Your task to perform on an android device: toggle improve location accuracy Image 0: 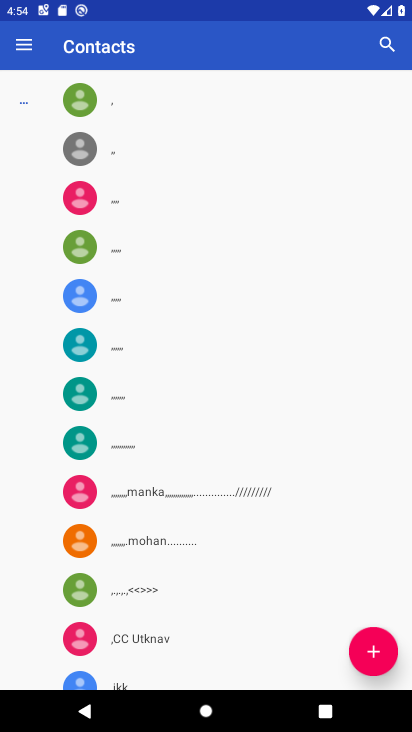
Step 0: press home button
Your task to perform on an android device: toggle improve location accuracy Image 1: 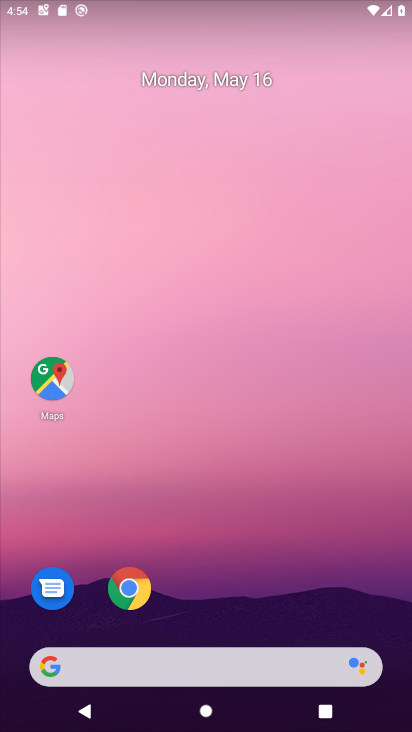
Step 1: drag from (267, 487) to (172, 84)
Your task to perform on an android device: toggle improve location accuracy Image 2: 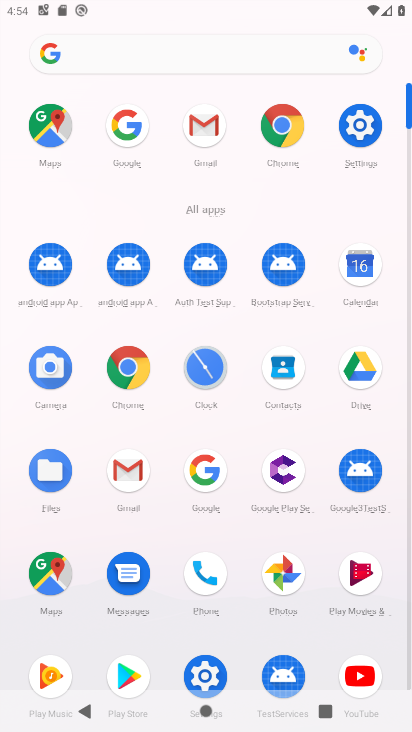
Step 2: click (351, 127)
Your task to perform on an android device: toggle improve location accuracy Image 3: 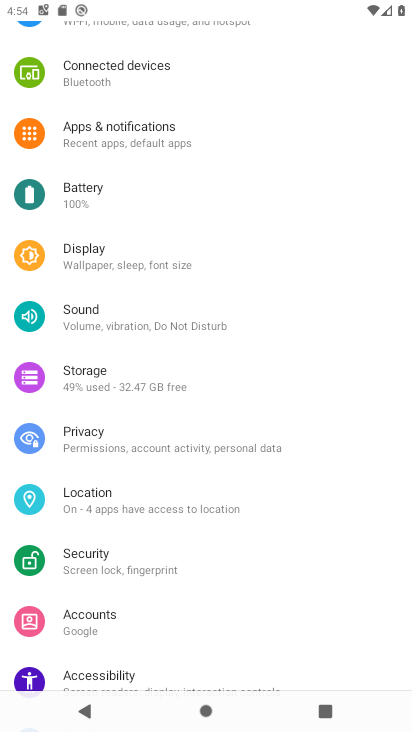
Step 3: click (150, 500)
Your task to perform on an android device: toggle improve location accuracy Image 4: 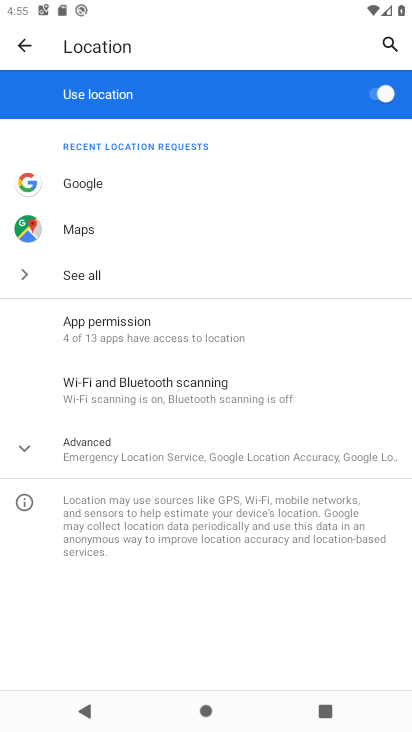
Step 4: click (170, 441)
Your task to perform on an android device: toggle improve location accuracy Image 5: 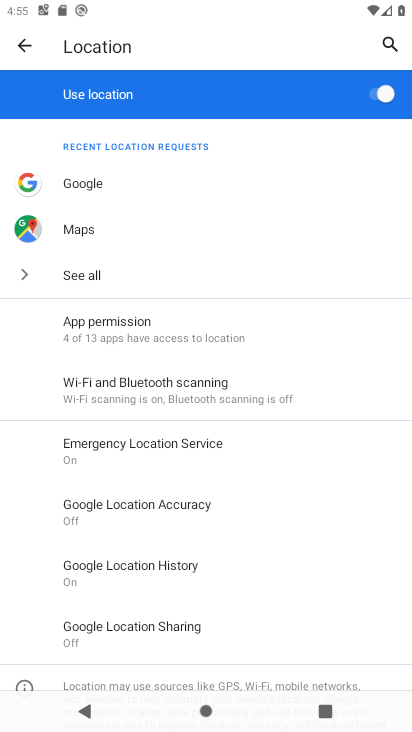
Step 5: click (163, 508)
Your task to perform on an android device: toggle improve location accuracy Image 6: 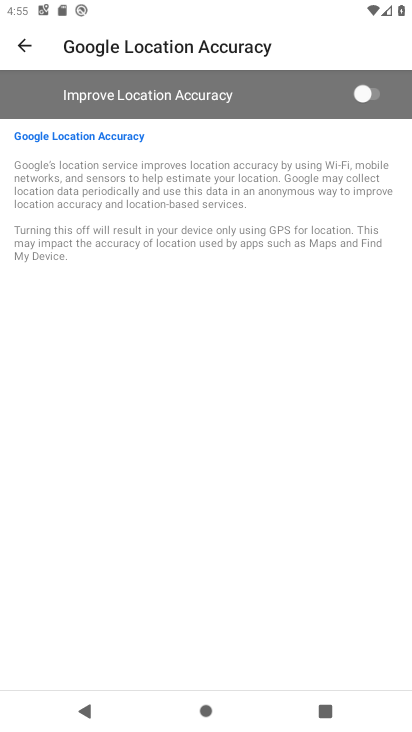
Step 6: click (354, 88)
Your task to perform on an android device: toggle improve location accuracy Image 7: 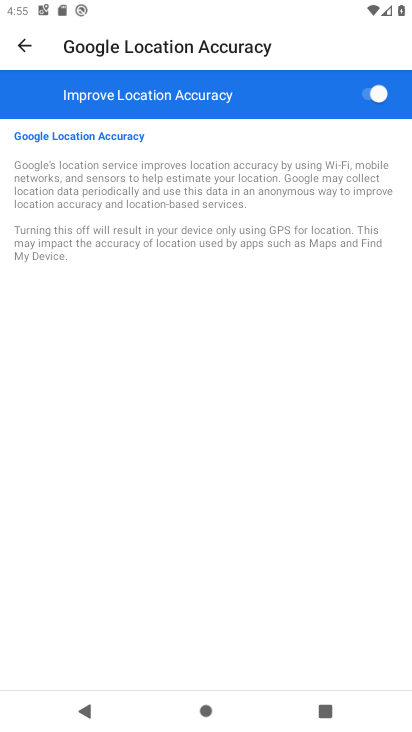
Step 7: task complete